Your task to perform on an android device: open a new tab in the chrome app Image 0: 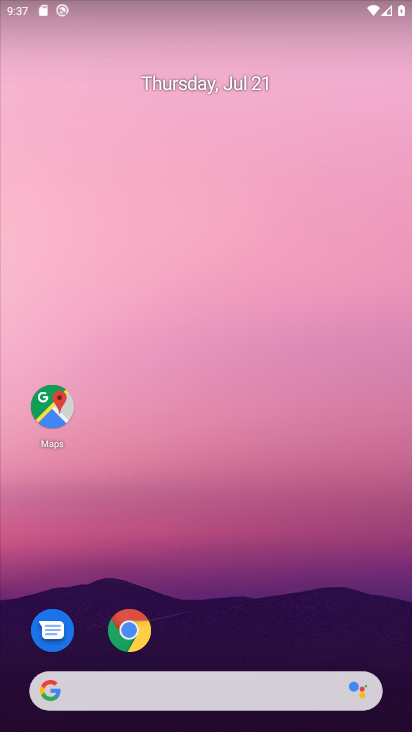
Step 0: click (135, 628)
Your task to perform on an android device: open a new tab in the chrome app Image 1: 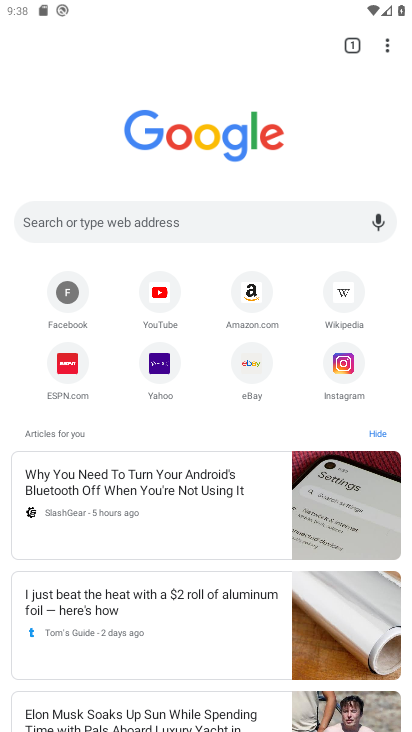
Step 1: click (385, 51)
Your task to perform on an android device: open a new tab in the chrome app Image 2: 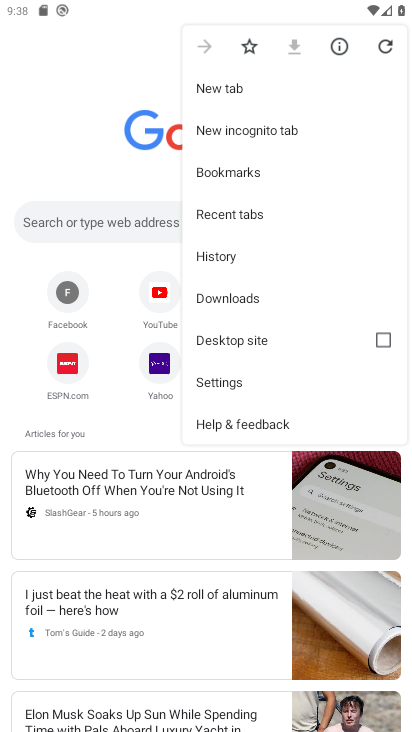
Step 2: click (259, 83)
Your task to perform on an android device: open a new tab in the chrome app Image 3: 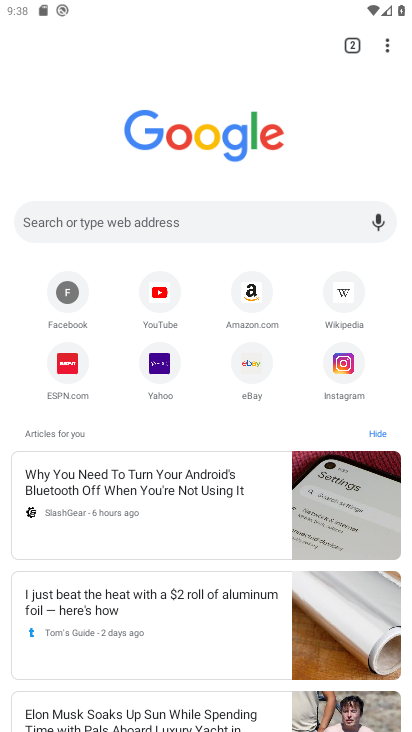
Step 3: task complete